Your task to perform on an android device: Set the phone to "Do not disturb". Image 0: 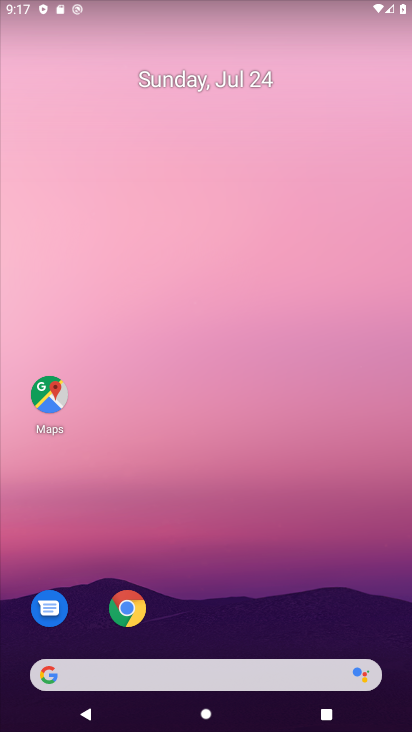
Step 0: click (185, 333)
Your task to perform on an android device: Set the phone to "Do not disturb". Image 1: 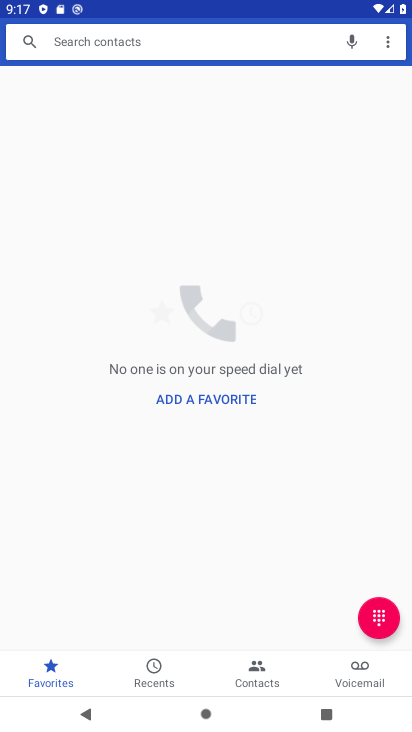
Step 1: drag from (233, 565) to (312, 192)
Your task to perform on an android device: Set the phone to "Do not disturb". Image 2: 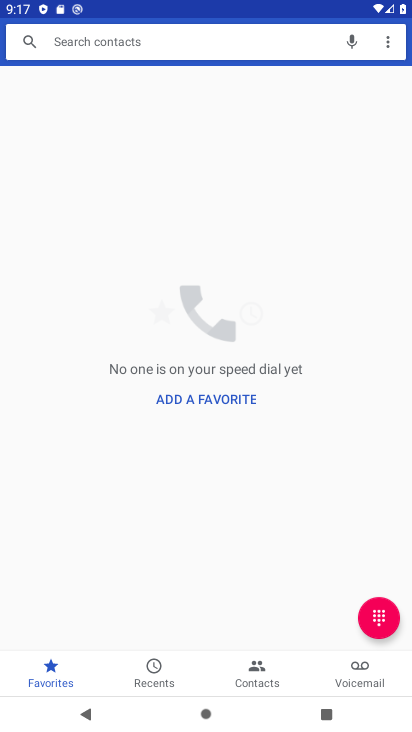
Step 2: press home button
Your task to perform on an android device: Set the phone to "Do not disturb". Image 3: 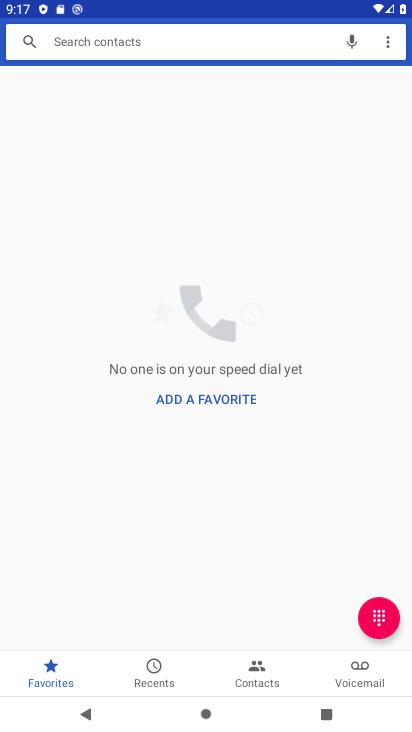
Step 3: press home button
Your task to perform on an android device: Set the phone to "Do not disturb". Image 4: 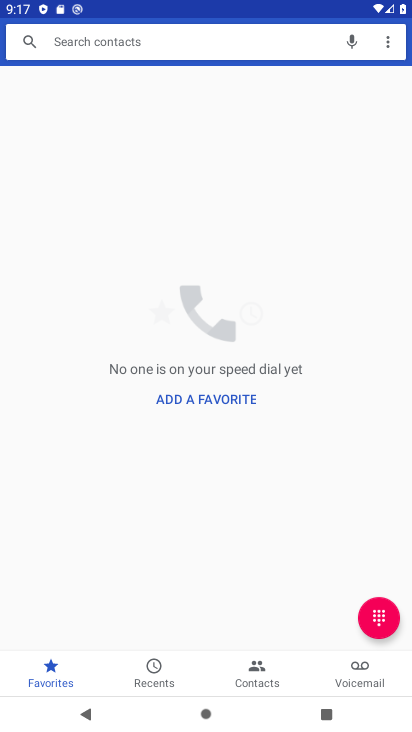
Step 4: click (257, 194)
Your task to perform on an android device: Set the phone to "Do not disturb". Image 5: 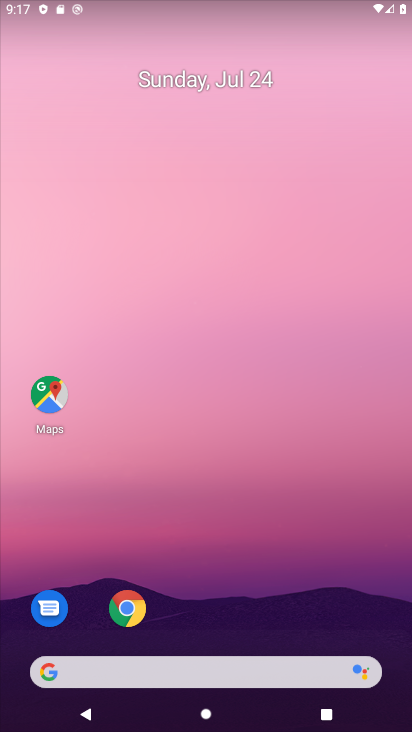
Step 5: drag from (191, 587) to (187, 79)
Your task to perform on an android device: Set the phone to "Do not disturb". Image 6: 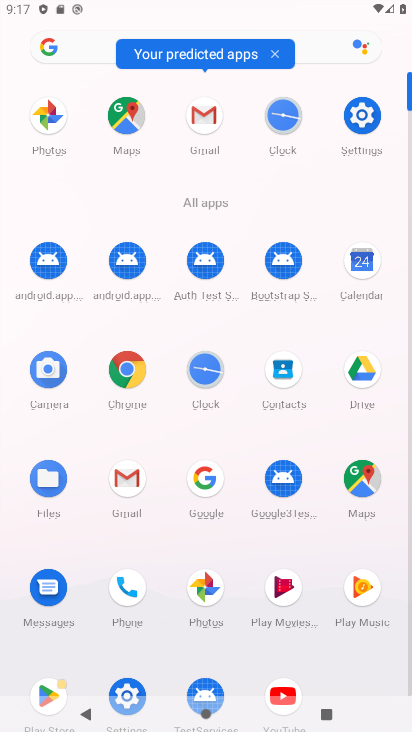
Step 6: click (121, 684)
Your task to perform on an android device: Set the phone to "Do not disturb". Image 7: 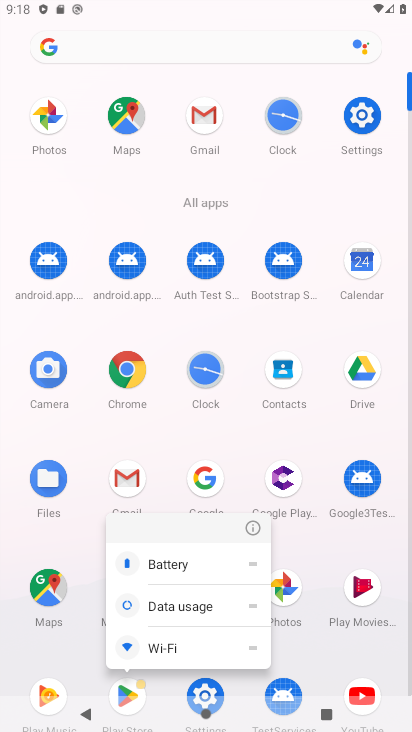
Step 7: click (257, 524)
Your task to perform on an android device: Set the phone to "Do not disturb". Image 8: 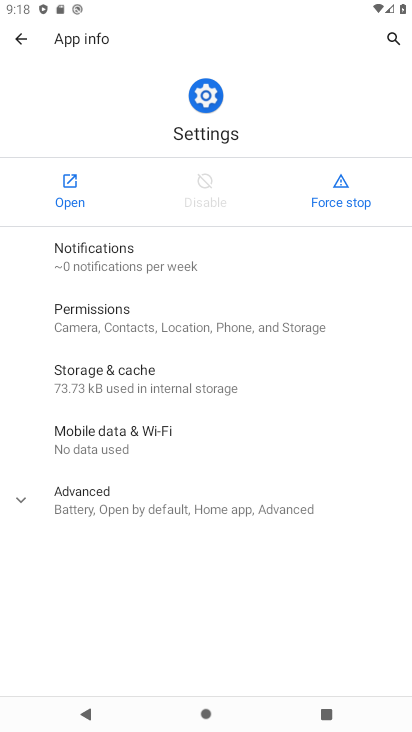
Step 8: click (70, 187)
Your task to perform on an android device: Set the phone to "Do not disturb". Image 9: 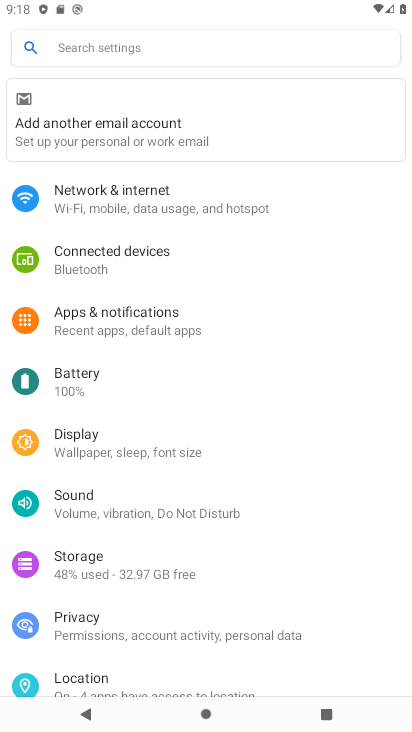
Step 9: click (106, 337)
Your task to perform on an android device: Set the phone to "Do not disturb". Image 10: 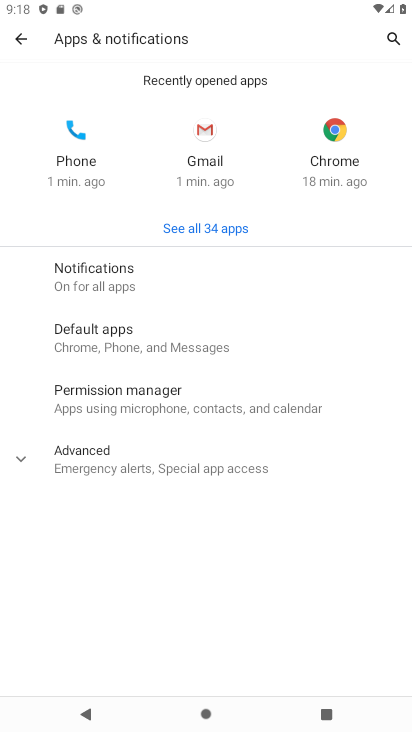
Step 10: click (107, 267)
Your task to perform on an android device: Set the phone to "Do not disturb". Image 11: 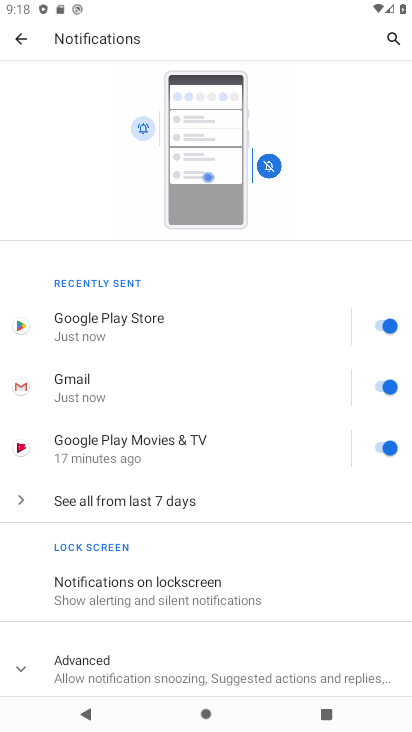
Step 11: drag from (196, 603) to (283, 262)
Your task to perform on an android device: Set the phone to "Do not disturb". Image 12: 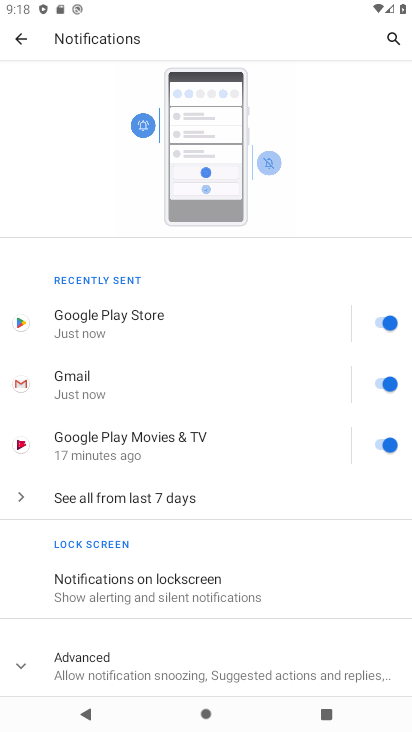
Step 12: drag from (159, 560) to (200, 362)
Your task to perform on an android device: Set the phone to "Do not disturb". Image 13: 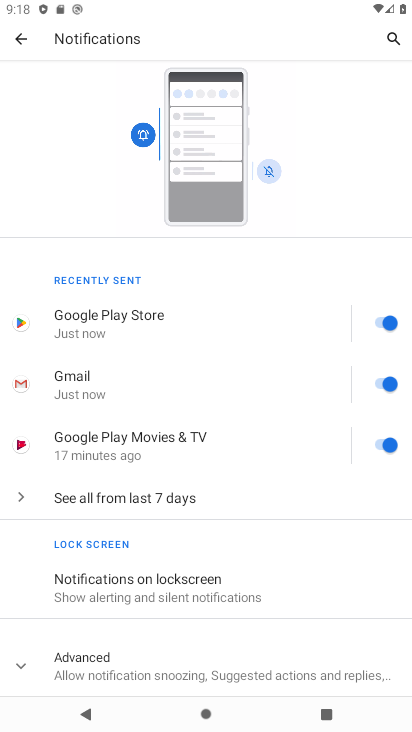
Step 13: click (113, 683)
Your task to perform on an android device: Set the phone to "Do not disturb". Image 14: 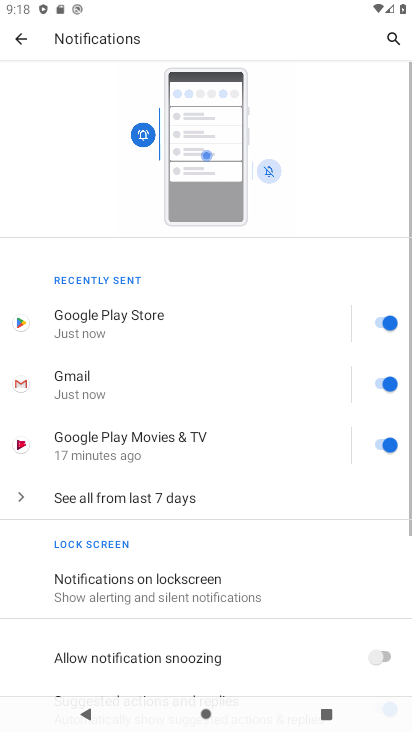
Step 14: drag from (133, 644) to (180, 214)
Your task to perform on an android device: Set the phone to "Do not disturb". Image 15: 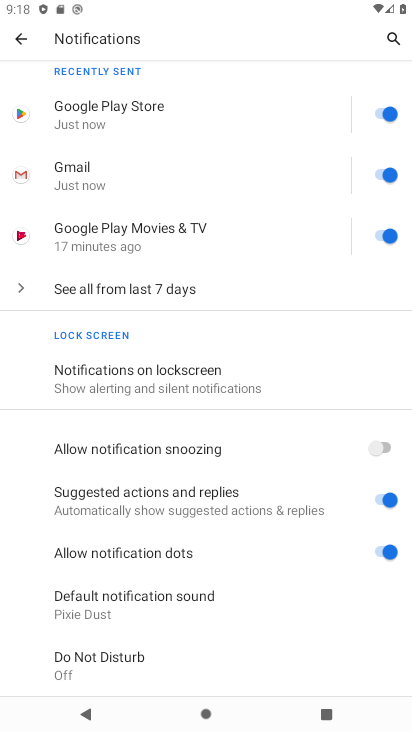
Step 15: click (126, 635)
Your task to perform on an android device: Set the phone to "Do not disturb". Image 16: 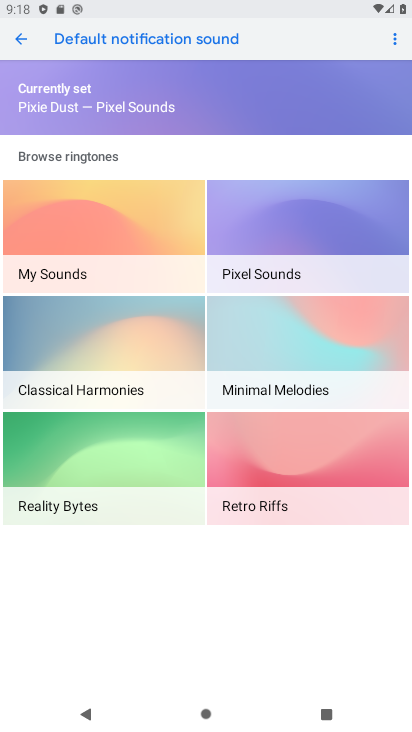
Step 16: click (19, 45)
Your task to perform on an android device: Set the phone to "Do not disturb". Image 17: 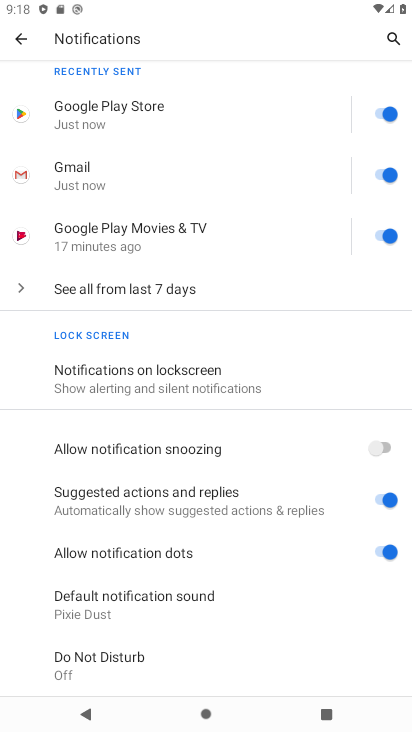
Step 17: click (84, 663)
Your task to perform on an android device: Set the phone to "Do not disturb". Image 18: 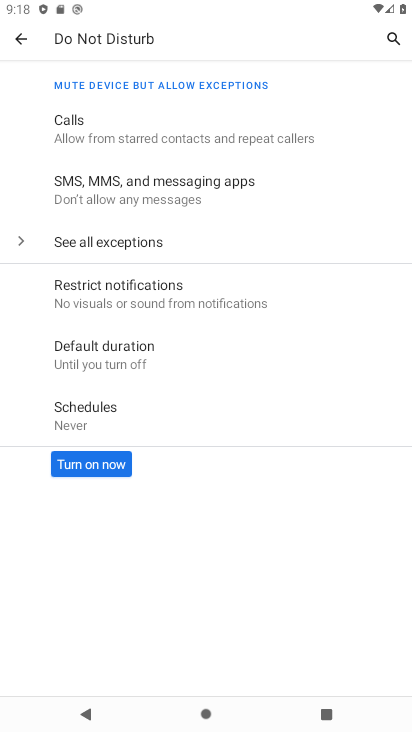
Step 18: click (58, 466)
Your task to perform on an android device: Set the phone to "Do not disturb". Image 19: 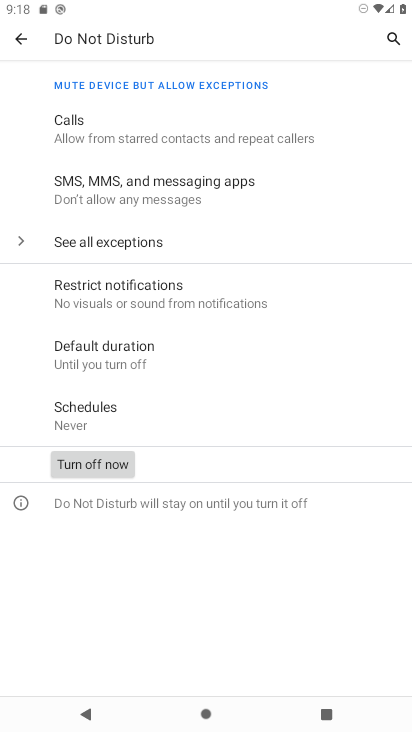
Step 19: task complete